Your task to perform on an android device: Open calendar and show me the third week of next month Image 0: 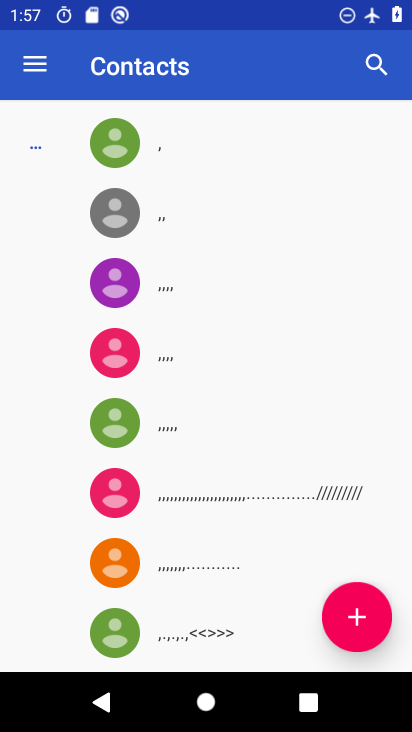
Step 0: press home button
Your task to perform on an android device: Open calendar and show me the third week of next month Image 1: 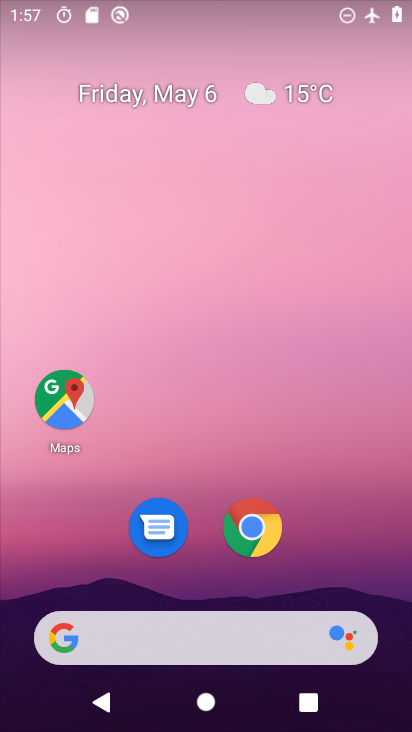
Step 1: drag from (240, 359) to (135, 91)
Your task to perform on an android device: Open calendar and show me the third week of next month Image 2: 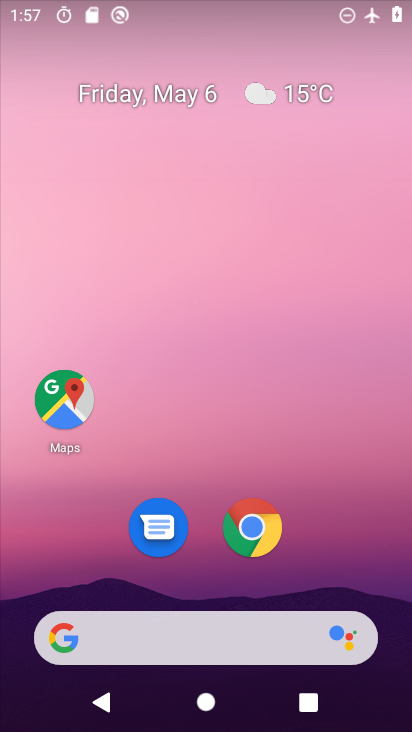
Step 2: drag from (193, 514) to (209, 56)
Your task to perform on an android device: Open calendar and show me the third week of next month Image 3: 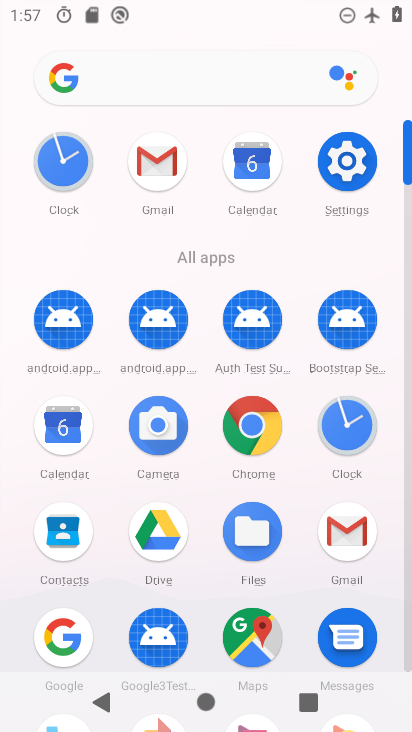
Step 3: click (246, 176)
Your task to perform on an android device: Open calendar and show me the third week of next month Image 4: 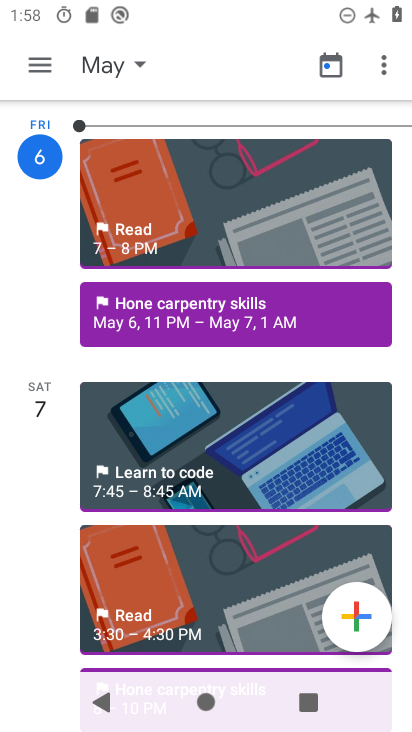
Step 4: click (121, 66)
Your task to perform on an android device: Open calendar and show me the third week of next month Image 5: 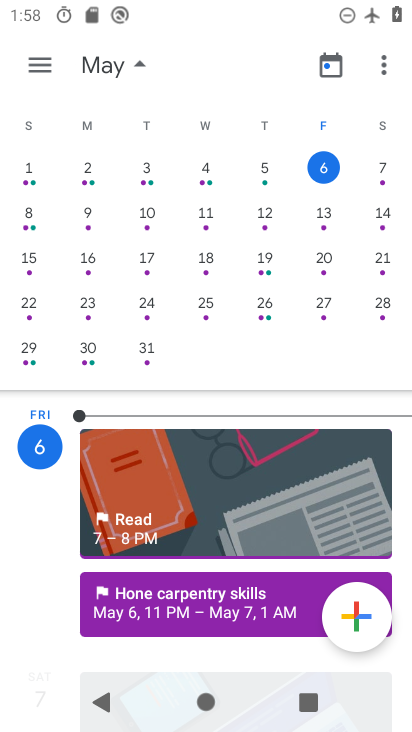
Step 5: drag from (391, 280) to (7, 249)
Your task to perform on an android device: Open calendar and show me the third week of next month Image 6: 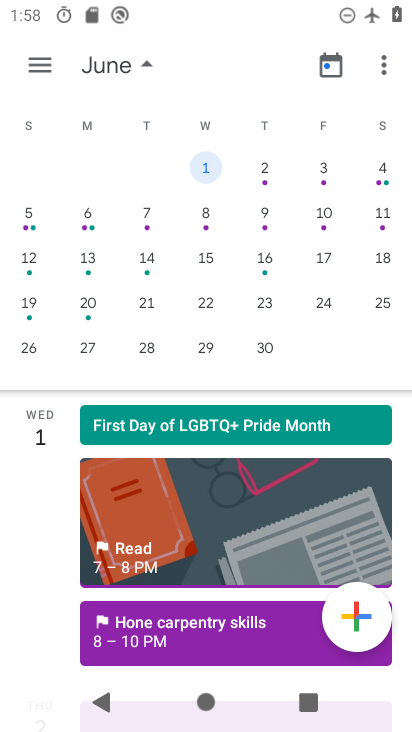
Step 6: click (30, 260)
Your task to perform on an android device: Open calendar and show me the third week of next month Image 7: 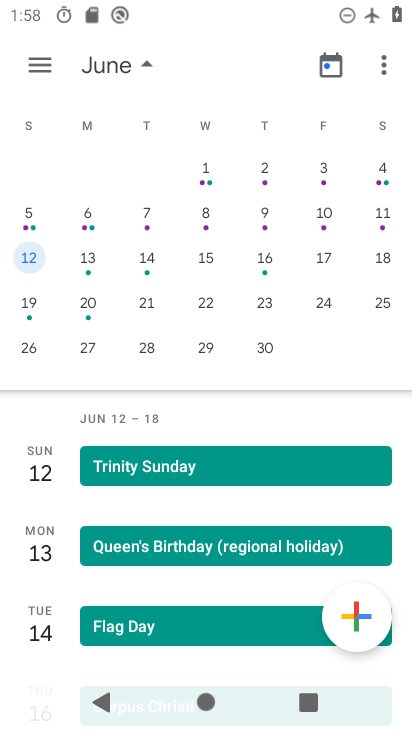
Step 7: click (30, 260)
Your task to perform on an android device: Open calendar and show me the third week of next month Image 8: 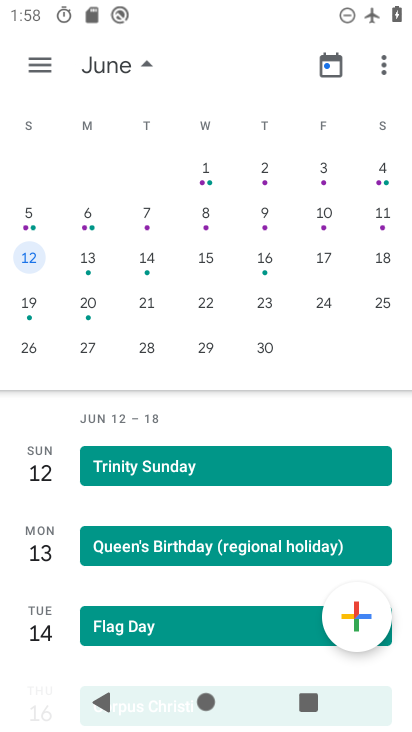
Step 8: click (42, 59)
Your task to perform on an android device: Open calendar and show me the third week of next month Image 9: 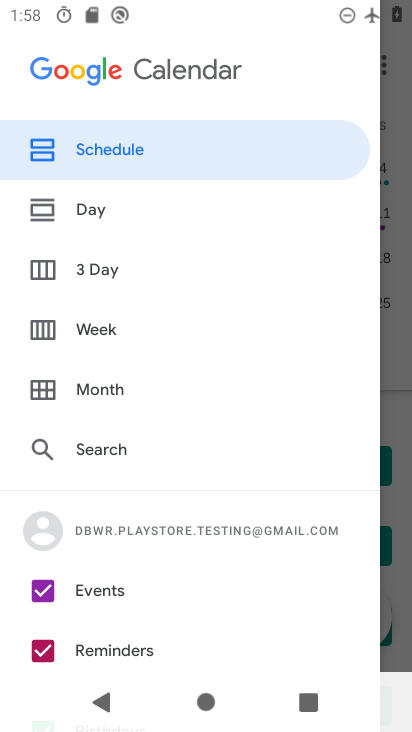
Step 9: click (50, 329)
Your task to perform on an android device: Open calendar and show me the third week of next month Image 10: 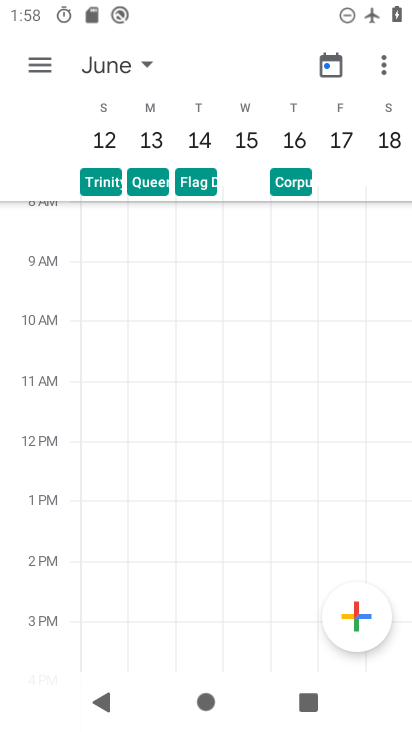
Step 10: drag from (224, 282) to (206, 603)
Your task to perform on an android device: Open calendar and show me the third week of next month Image 11: 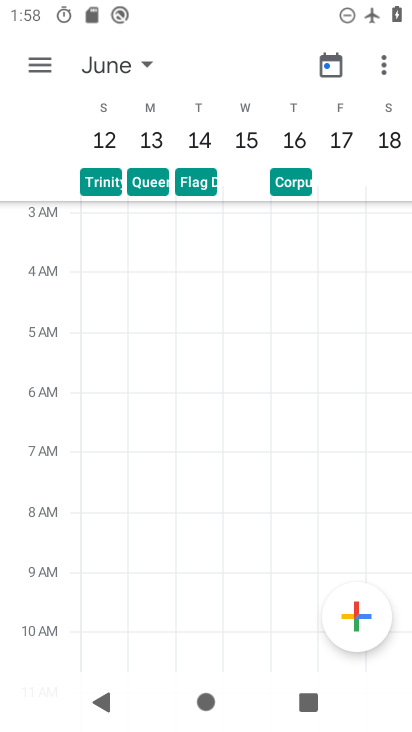
Step 11: drag from (224, 357) to (195, 589)
Your task to perform on an android device: Open calendar and show me the third week of next month Image 12: 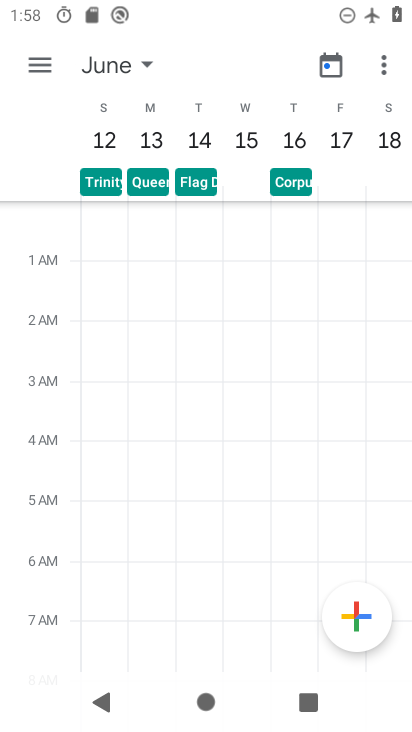
Step 12: drag from (255, 302) to (225, 494)
Your task to perform on an android device: Open calendar and show me the third week of next month Image 13: 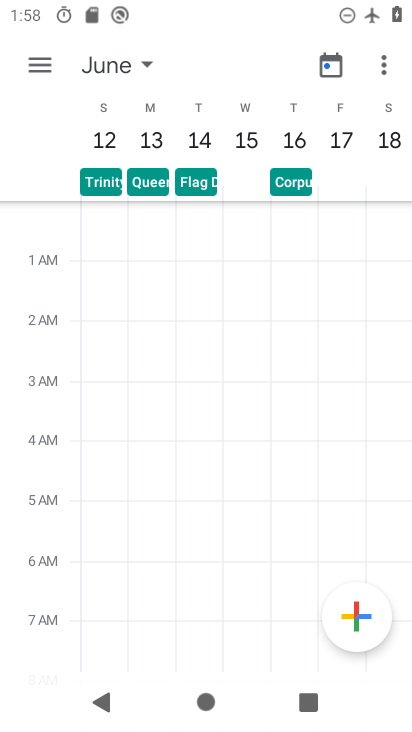
Step 13: click (34, 55)
Your task to perform on an android device: Open calendar and show me the third week of next month Image 14: 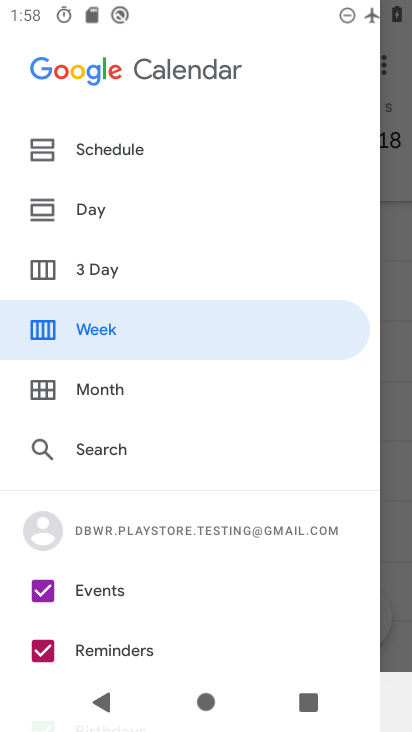
Step 14: task complete